Your task to perform on an android device: Open Android settings Image 0: 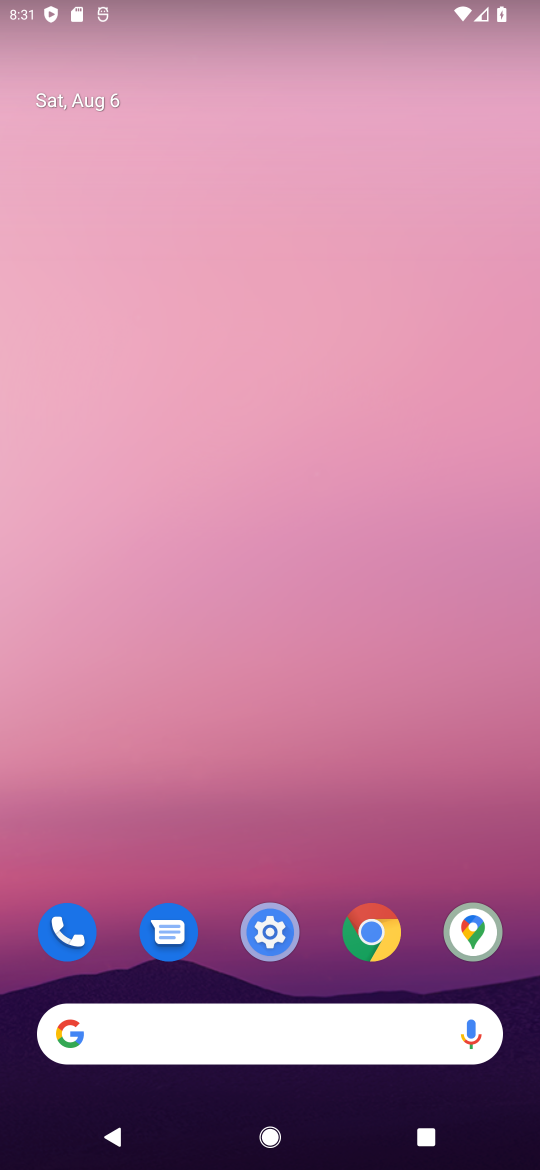
Step 0: drag from (249, 1046) to (345, 469)
Your task to perform on an android device: Open Android settings Image 1: 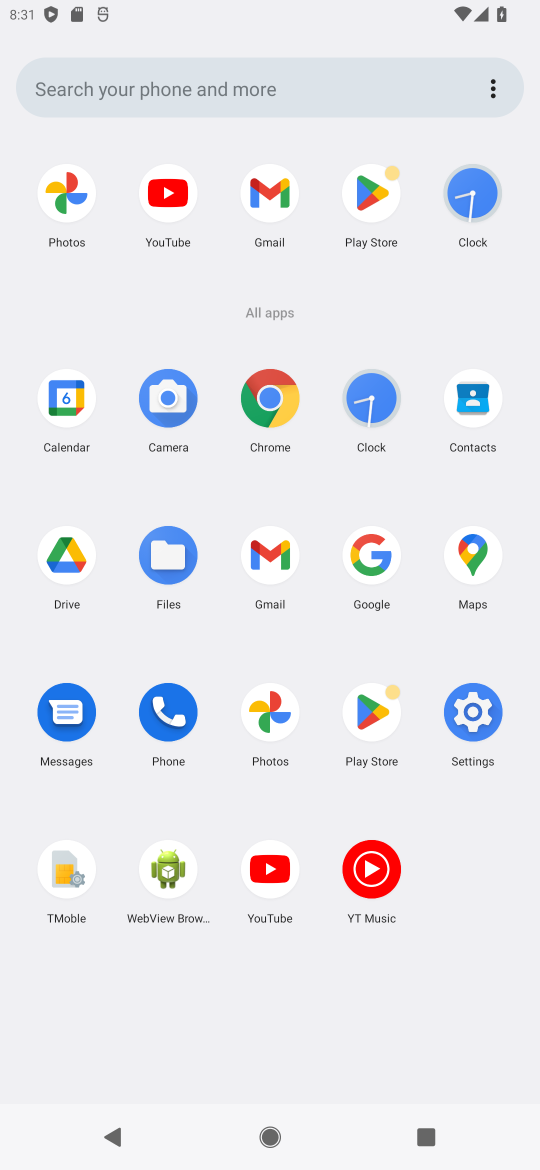
Step 1: click (479, 718)
Your task to perform on an android device: Open Android settings Image 2: 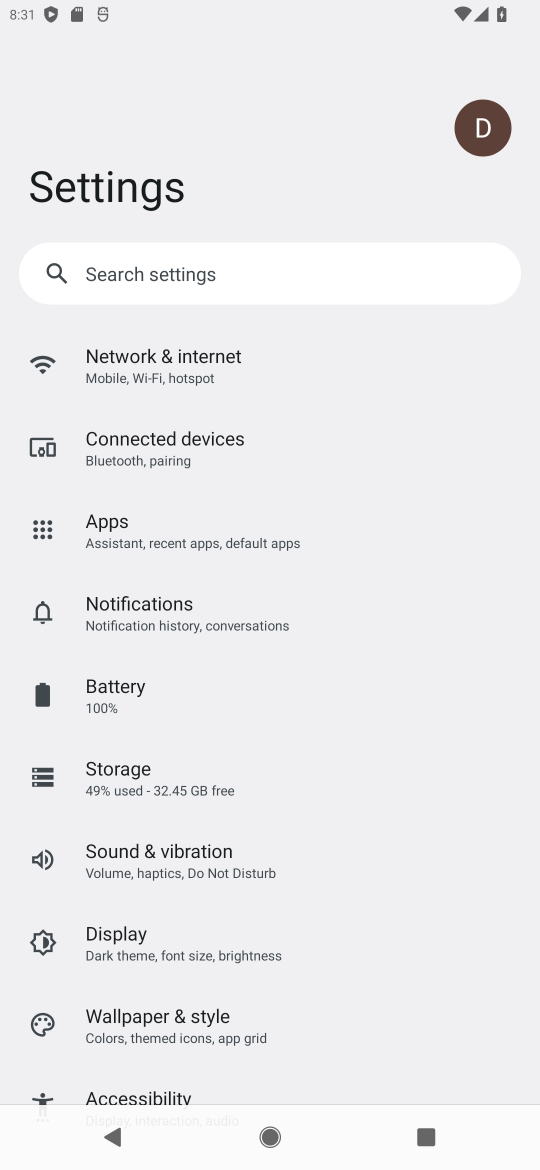
Step 2: task complete